Your task to perform on an android device: Show me the alarms in the clock app Image 0: 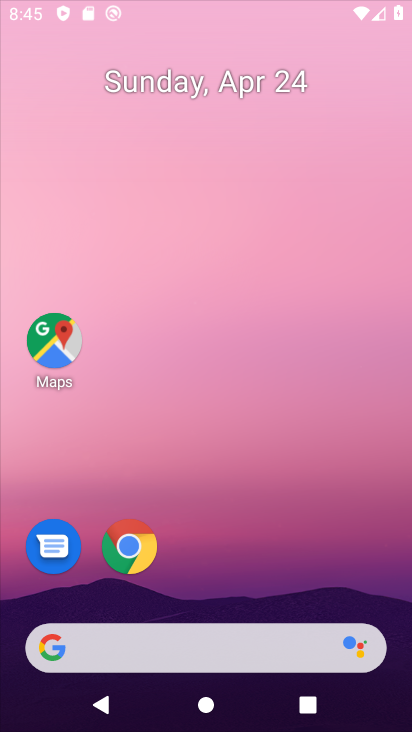
Step 0: click (284, 115)
Your task to perform on an android device: Show me the alarms in the clock app Image 1: 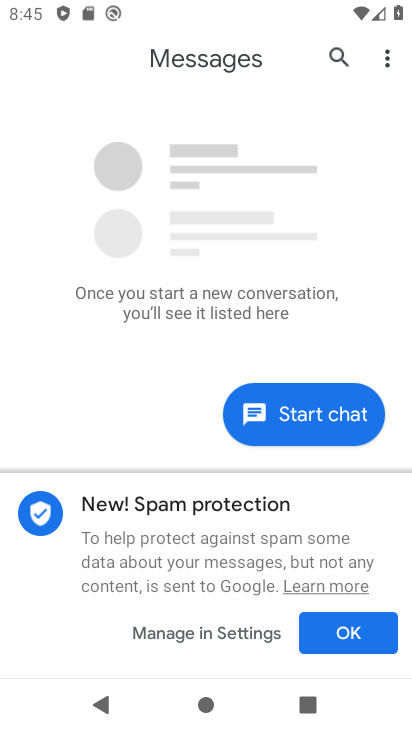
Step 1: drag from (249, 548) to (281, 233)
Your task to perform on an android device: Show me the alarms in the clock app Image 2: 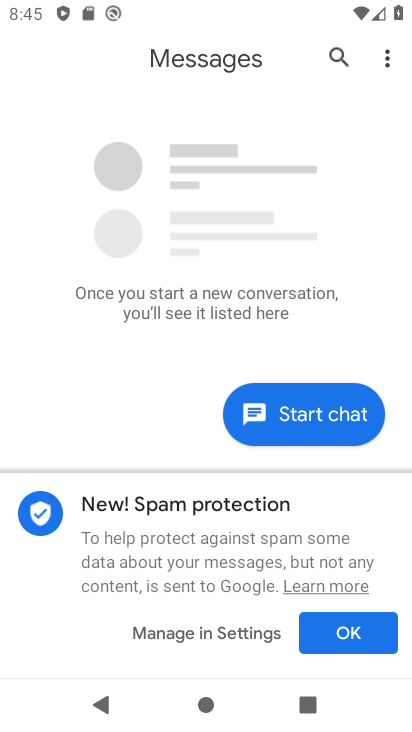
Step 2: press home button
Your task to perform on an android device: Show me the alarms in the clock app Image 3: 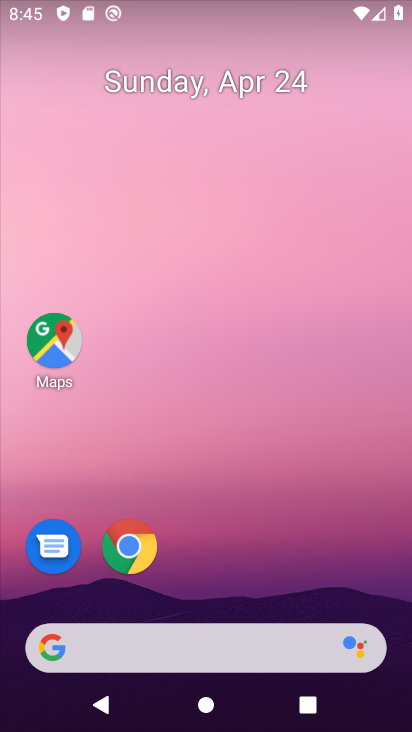
Step 3: drag from (257, 576) to (311, 233)
Your task to perform on an android device: Show me the alarms in the clock app Image 4: 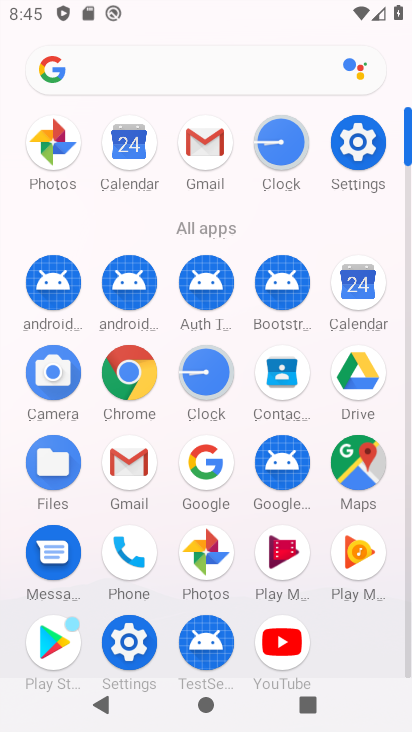
Step 4: click (207, 366)
Your task to perform on an android device: Show me the alarms in the clock app Image 5: 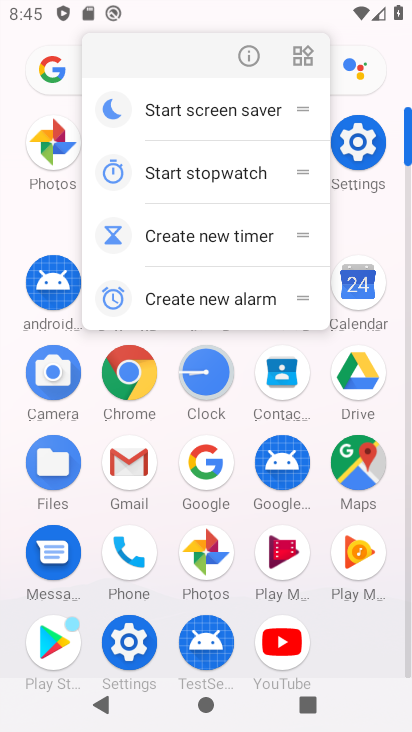
Step 5: click (207, 366)
Your task to perform on an android device: Show me the alarms in the clock app Image 6: 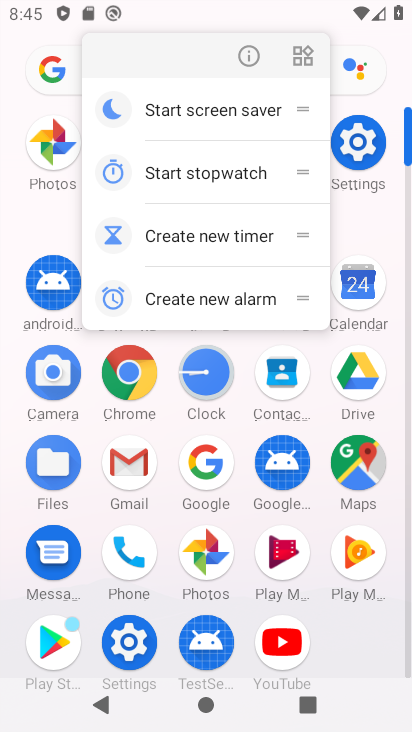
Step 6: click (207, 366)
Your task to perform on an android device: Show me the alarms in the clock app Image 7: 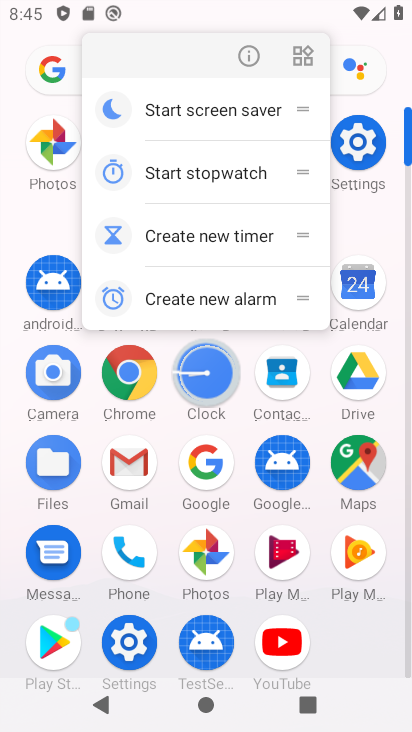
Step 7: click (207, 366)
Your task to perform on an android device: Show me the alarms in the clock app Image 8: 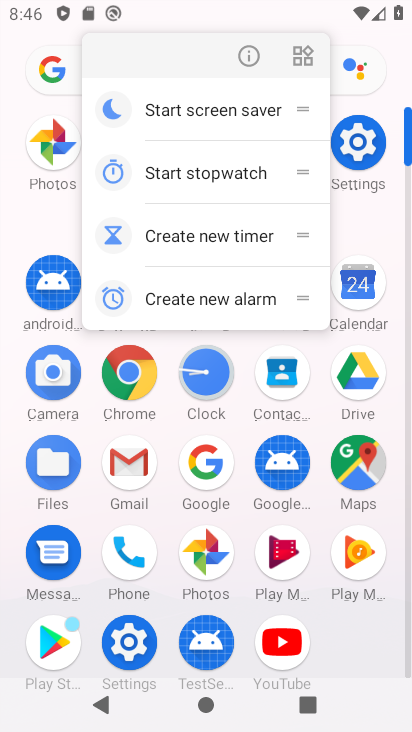
Step 8: click (207, 366)
Your task to perform on an android device: Show me the alarms in the clock app Image 9: 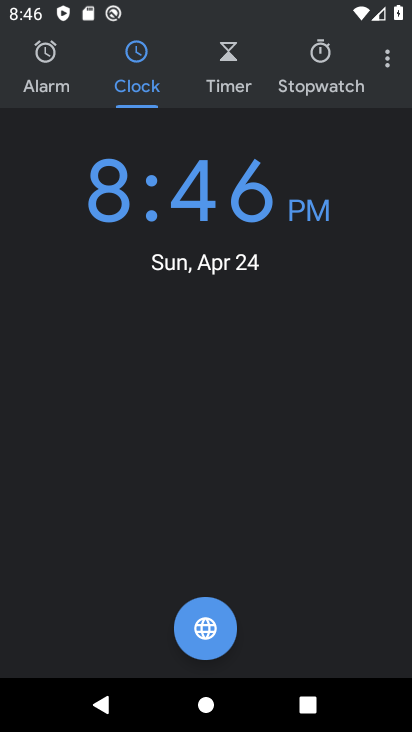
Step 9: click (44, 69)
Your task to perform on an android device: Show me the alarms in the clock app Image 10: 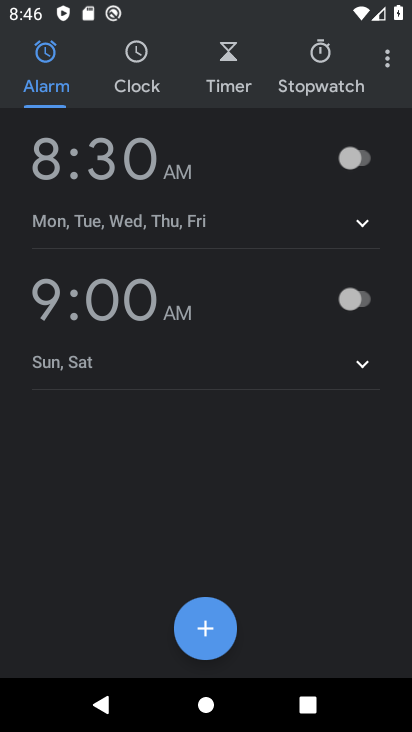
Step 10: task complete